Your task to perform on an android device: Go to Google Image 0: 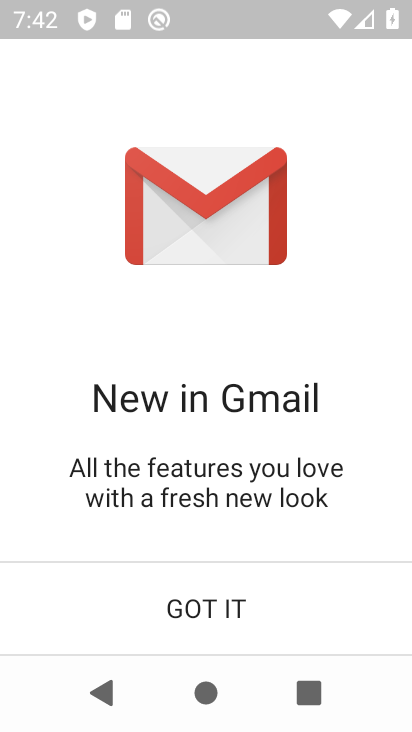
Step 0: press home button
Your task to perform on an android device: Go to Google Image 1: 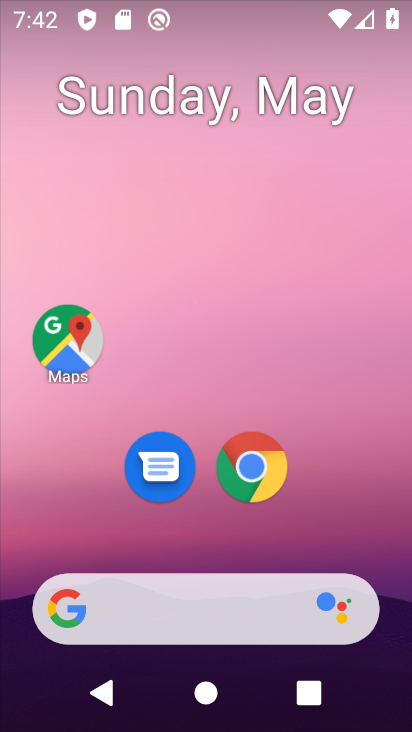
Step 1: drag from (338, 548) to (341, 17)
Your task to perform on an android device: Go to Google Image 2: 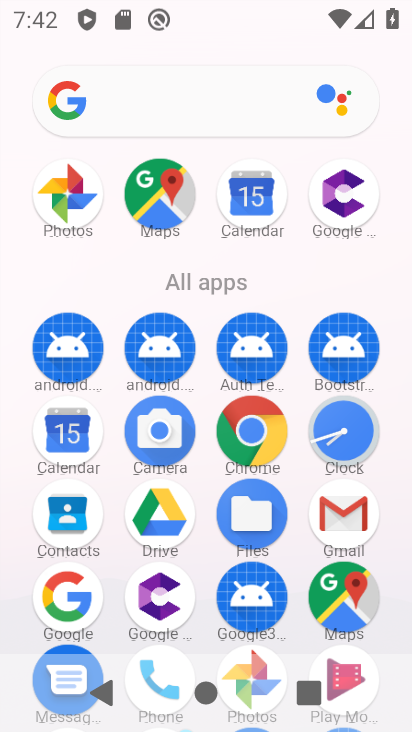
Step 2: click (59, 606)
Your task to perform on an android device: Go to Google Image 3: 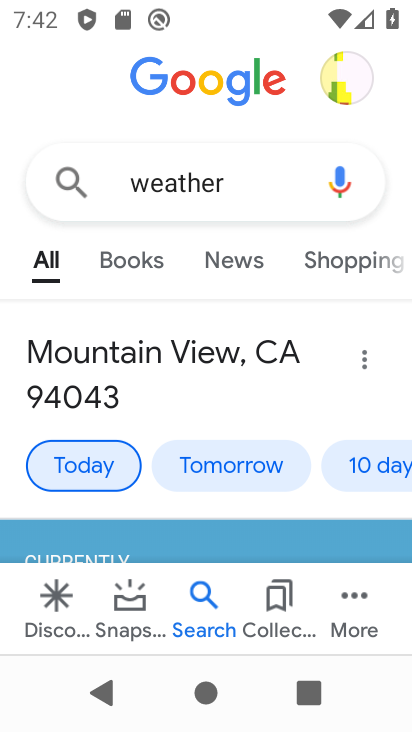
Step 3: task complete